Your task to perform on an android device: Open Youtube and go to the subscriptions tab Image 0: 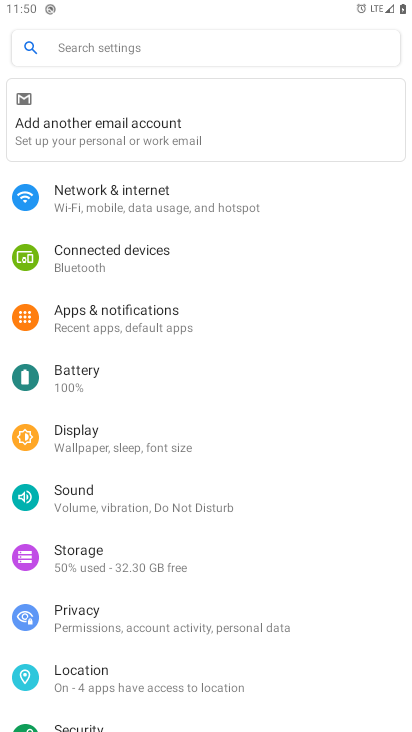
Step 0: press home button
Your task to perform on an android device: Open Youtube and go to the subscriptions tab Image 1: 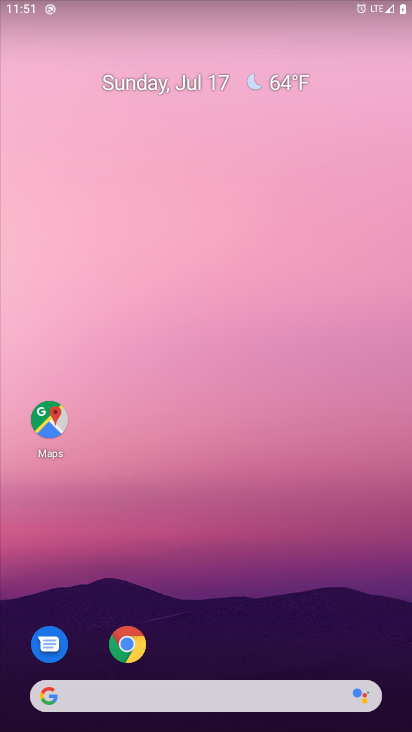
Step 1: drag from (280, 630) to (292, 142)
Your task to perform on an android device: Open Youtube and go to the subscriptions tab Image 2: 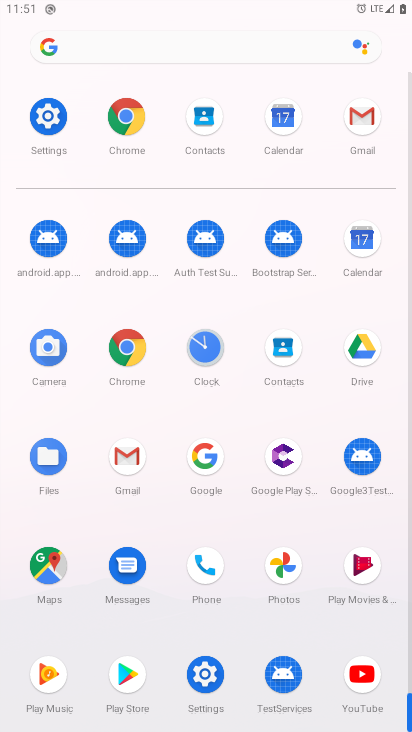
Step 2: click (354, 674)
Your task to perform on an android device: Open Youtube and go to the subscriptions tab Image 3: 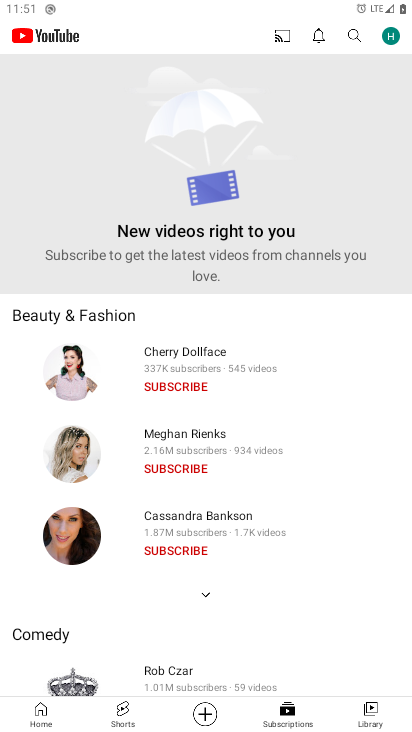
Step 3: click (276, 705)
Your task to perform on an android device: Open Youtube and go to the subscriptions tab Image 4: 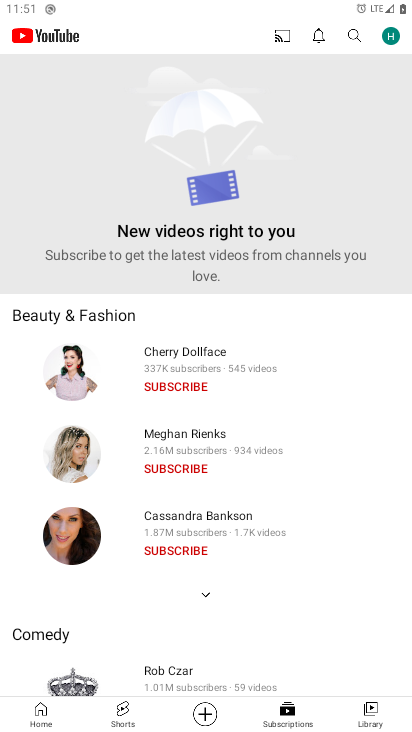
Step 4: click (283, 709)
Your task to perform on an android device: Open Youtube and go to the subscriptions tab Image 5: 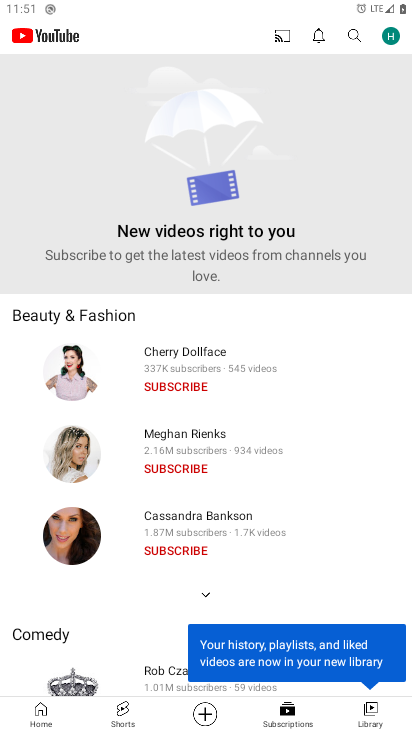
Step 5: task complete